Your task to perform on an android device: turn off wifi Image 0: 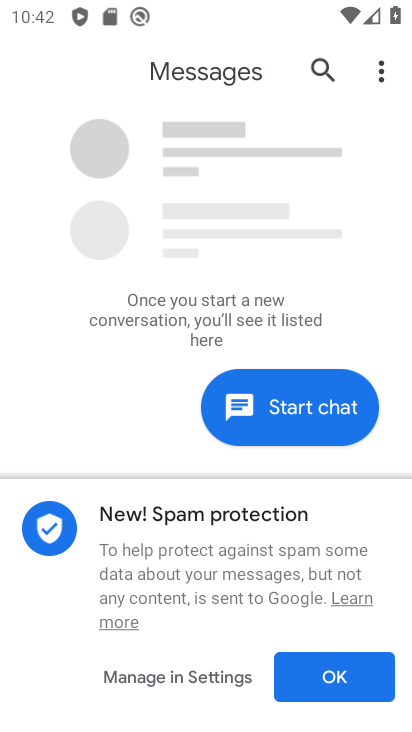
Step 0: press home button
Your task to perform on an android device: turn off wifi Image 1: 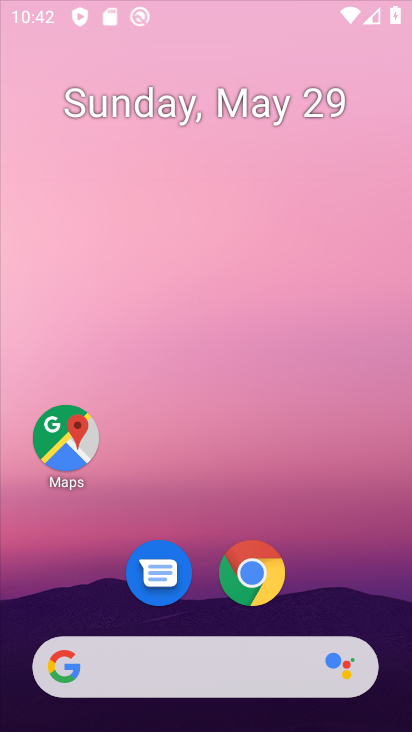
Step 1: drag from (293, 574) to (279, 8)
Your task to perform on an android device: turn off wifi Image 2: 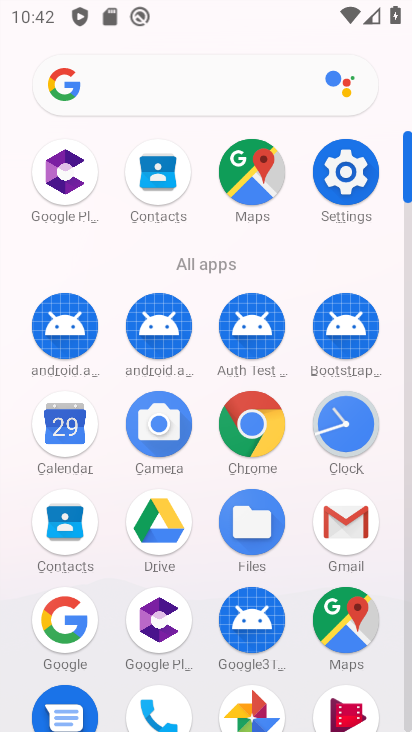
Step 2: click (358, 171)
Your task to perform on an android device: turn off wifi Image 3: 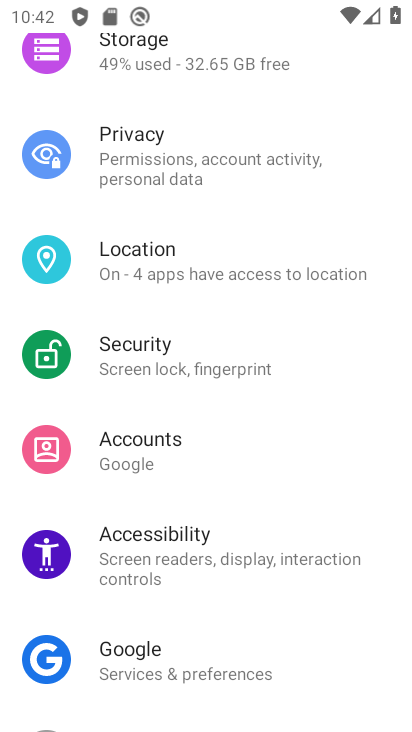
Step 3: drag from (218, 279) to (213, 731)
Your task to perform on an android device: turn off wifi Image 4: 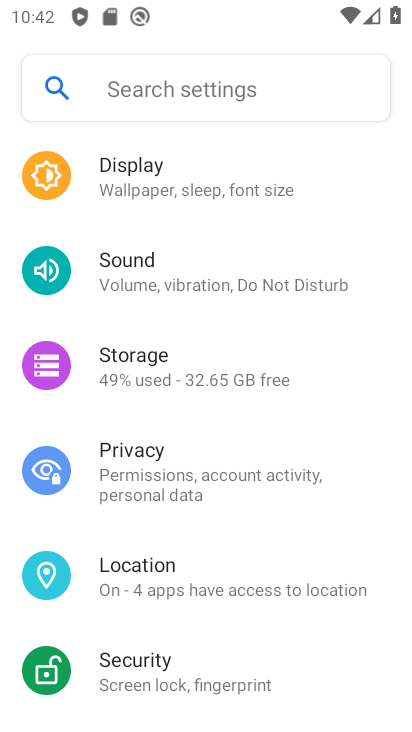
Step 4: drag from (213, 181) to (218, 698)
Your task to perform on an android device: turn off wifi Image 5: 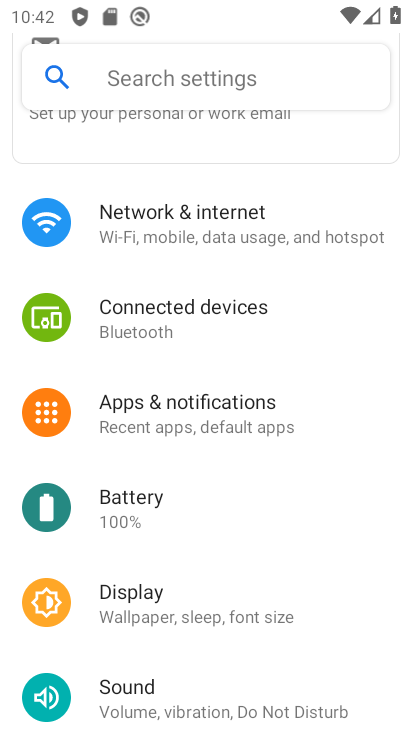
Step 5: click (176, 232)
Your task to perform on an android device: turn off wifi Image 6: 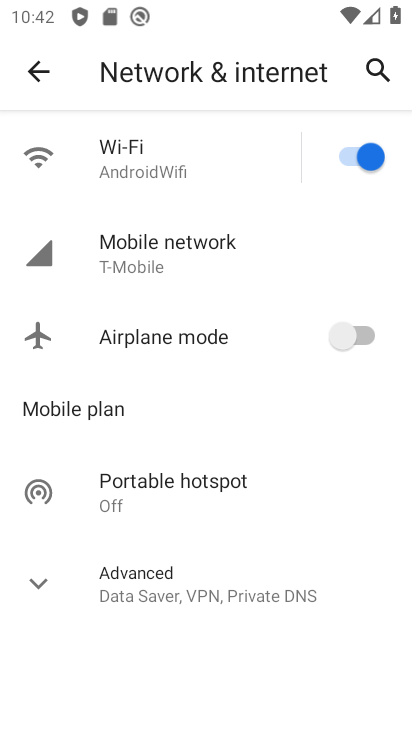
Step 6: click (362, 157)
Your task to perform on an android device: turn off wifi Image 7: 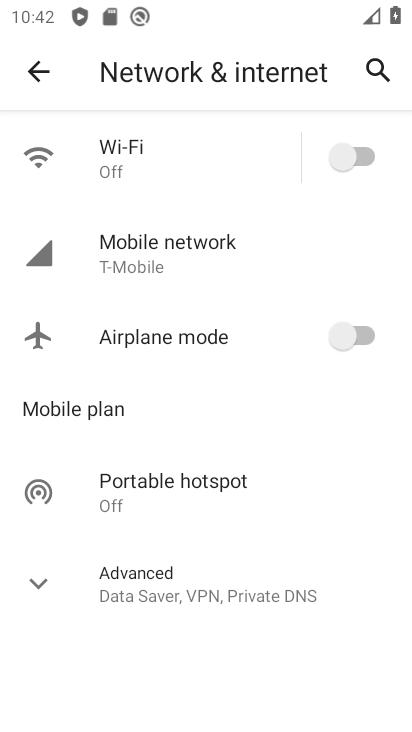
Step 7: task complete